Your task to perform on an android device: open chrome and create a bookmark for the current page Image 0: 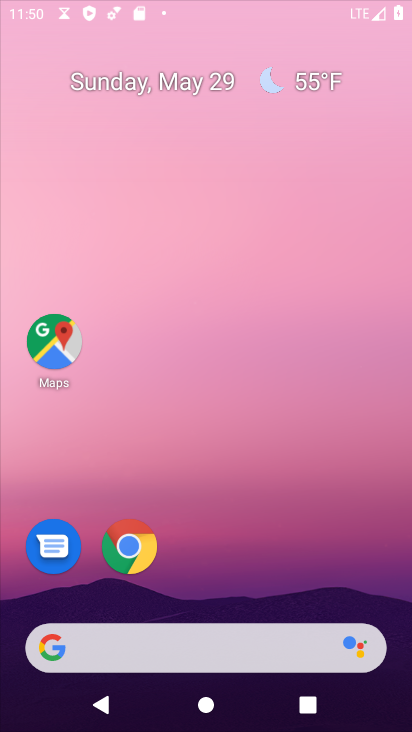
Step 0: press home button
Your task to perform on an android device: open chrome and create a bookmark for the current page Image 1: 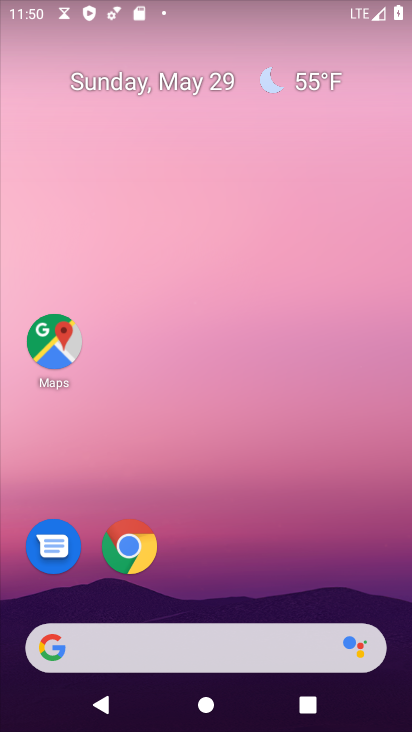
Step 1: click (130, 555)
Your task to perform on an android device: open chrome and create a bookmark for the current page Image 2: 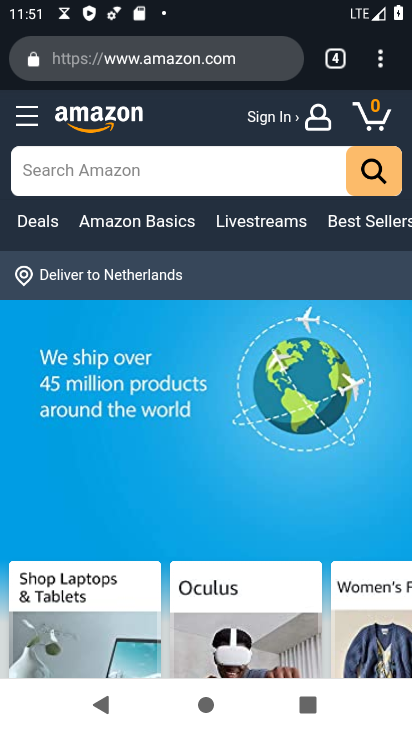
Step 2: click (378, 79)
Your task to perform on an android device: open chrome and create a bookmark for the current page Image 3: 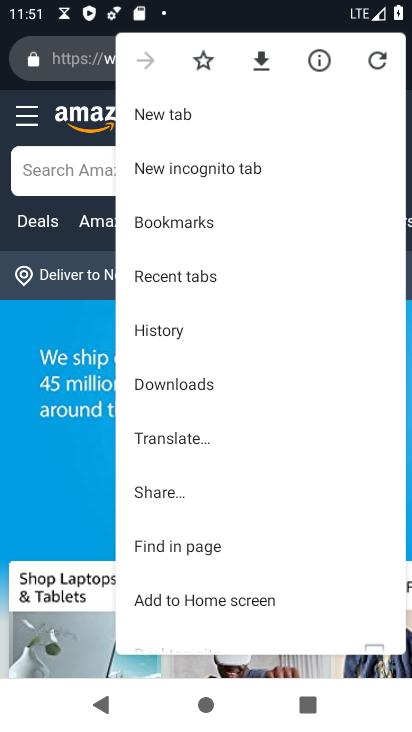
Step 3: click (201, 56)
Your task to perform on an android device: open chrome and create a bookmark for the current page Image 4: 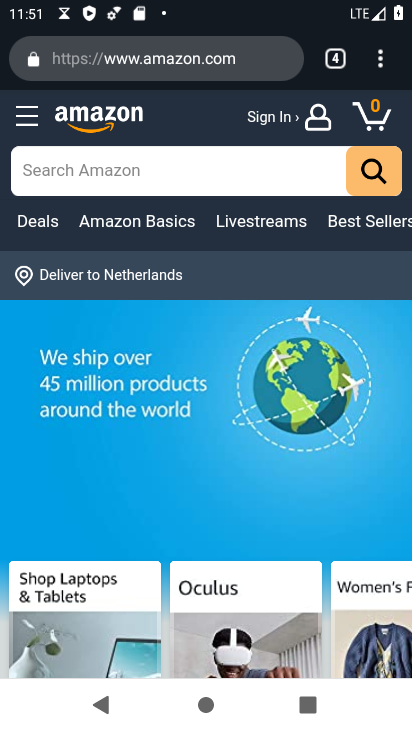
Step 4: task complete